Your task to perform on an android device: turn on javascript in the chrome app Image 0: 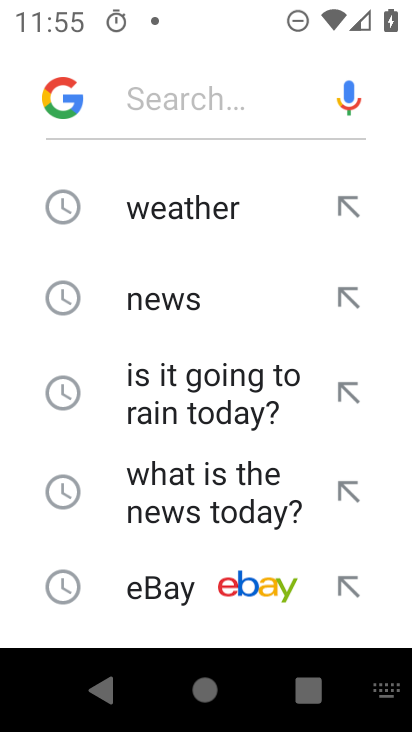
Step 0: press back button
Your task to perform on an android device: turn on javascript in the chrome app Image 1: 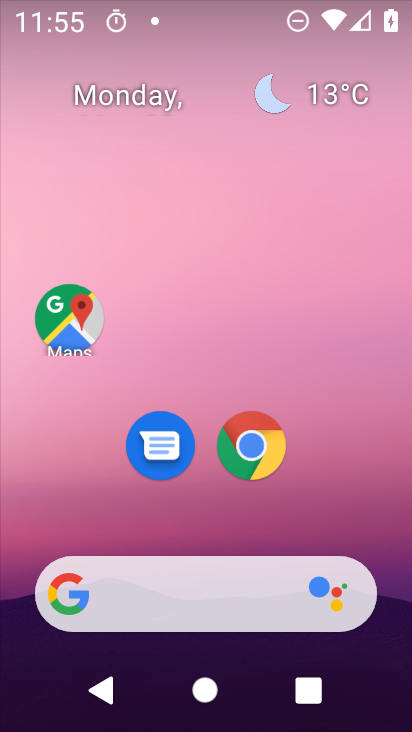
Step 1: click (270, 429)
Your task to perform on an android device: turn on javascript in the chrome app Image 2: 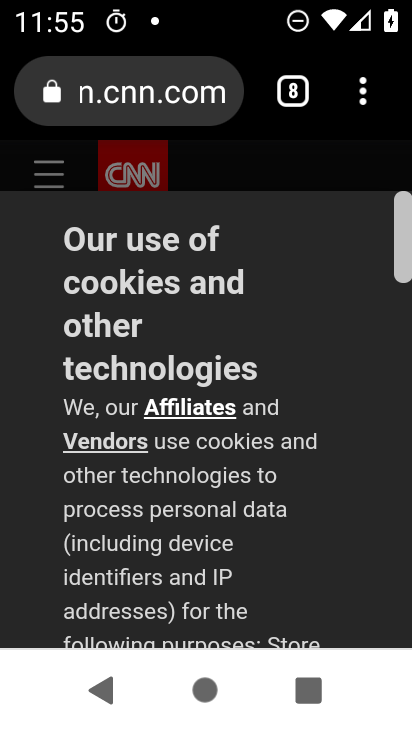
Step 2: drag from (361, 90) to (98, 476)
Your task to perform on an android device: turn on javascript in the chrome app Image 3: 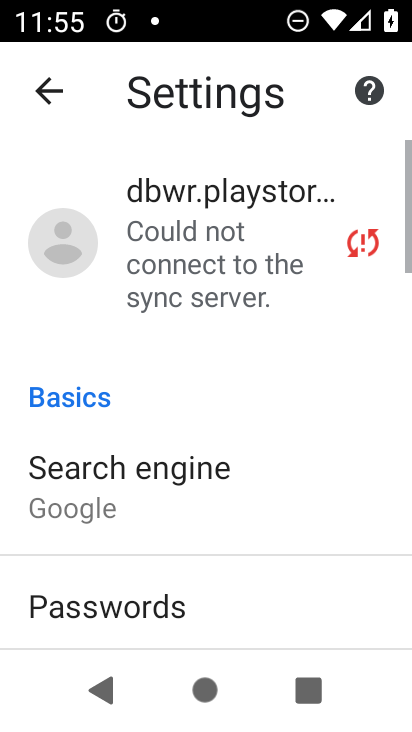
Step 3: drag from (168, 607) to (241, 46)
Your task to perform on an android device: turn on javascript in the chrome app Image 4: 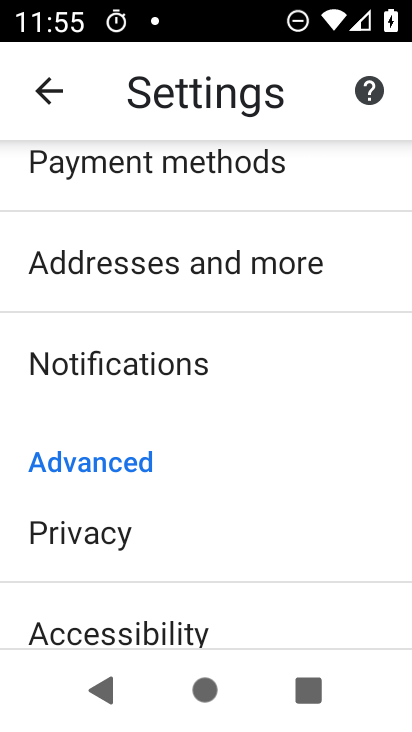
Step 4: drag from (178, 612) to (236, 145)
Your task to perform on an android device: turn on javascript in the chrome app Image 5: 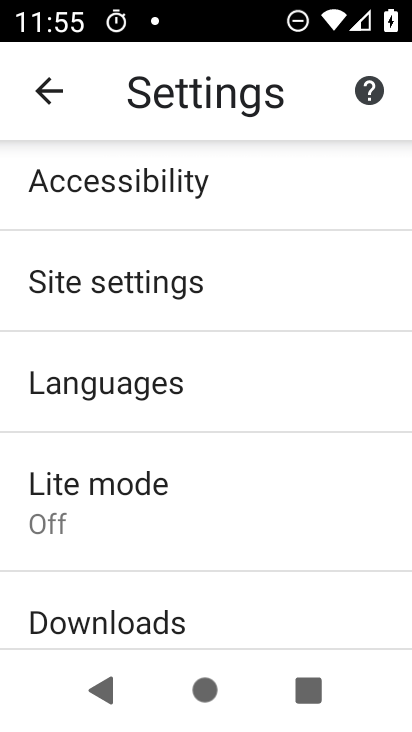
Step 5: click (143, 280)
Your task to perform on an android device: turn on javascript in the chrome app Image 6: 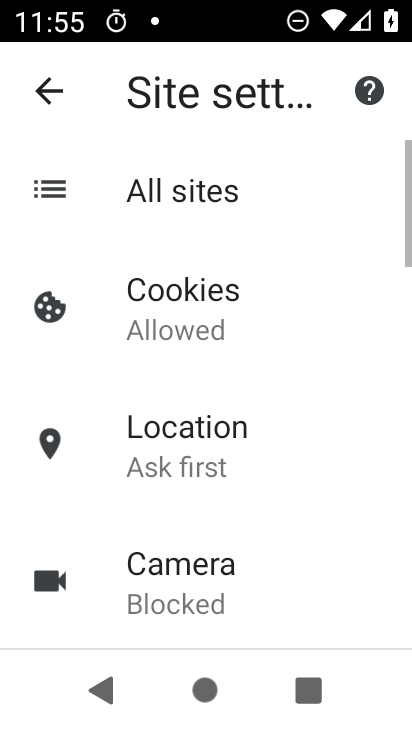
Step 6: drag from (194, 627) to (299, 122)
Your task to perform on an android device: turn on javascript in the chrome app Image 7: 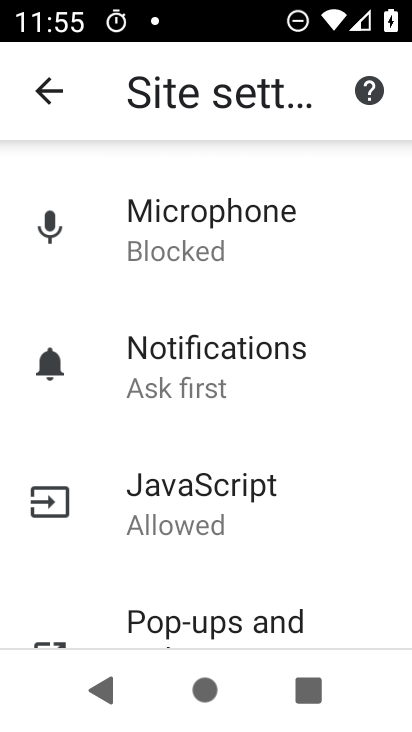
Step 7: click (221, 502)
Your task to perform on an android device: turn on javascript in the chrome app Image 8: 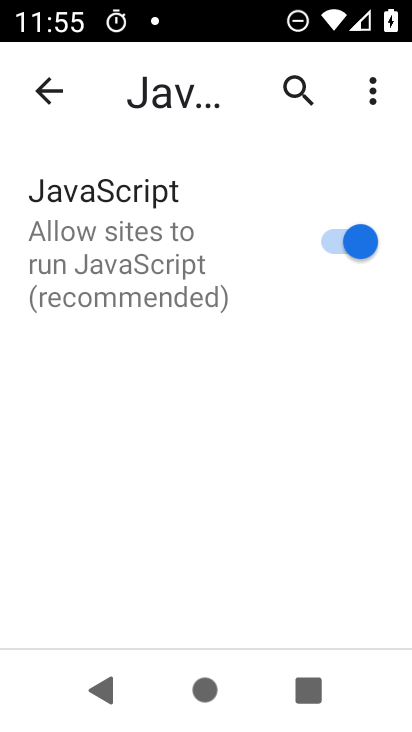
Step 8: task complete